Your task to perform on an android device: check data usage Image 0: 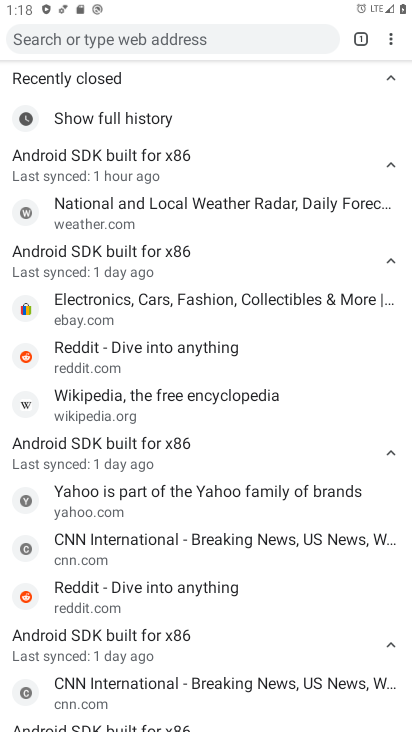
Step 0: press home button
Your task to perform on an android device: check data usage Image 1: 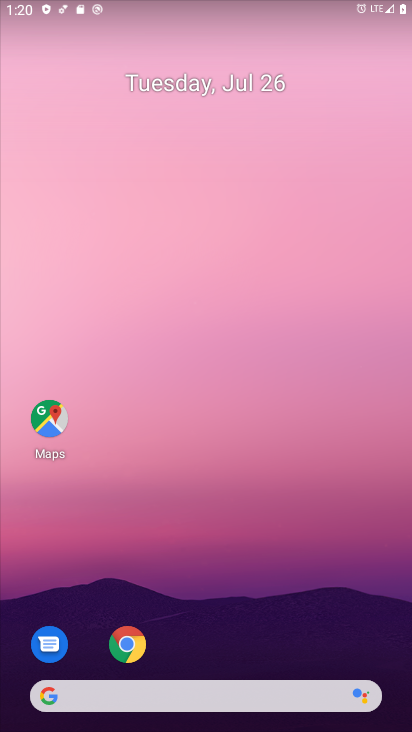
Step 1: drag from (271, 725) to (239, 0)
Your task to perform on an android device: check data usage Image 2: 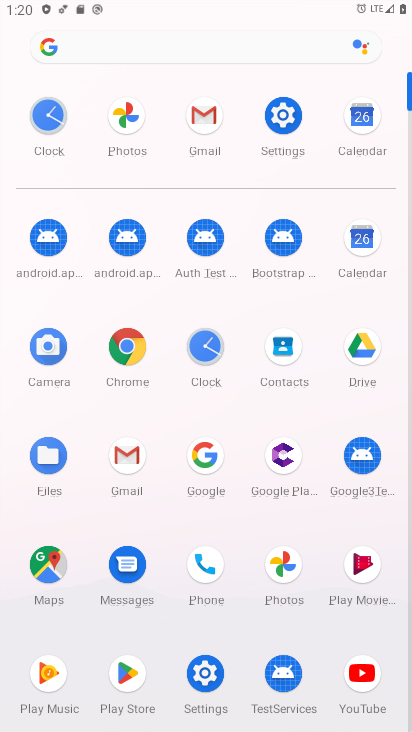
Step 2: click (286, 129)
Your task to perform on an android device: check data usage Image 3: 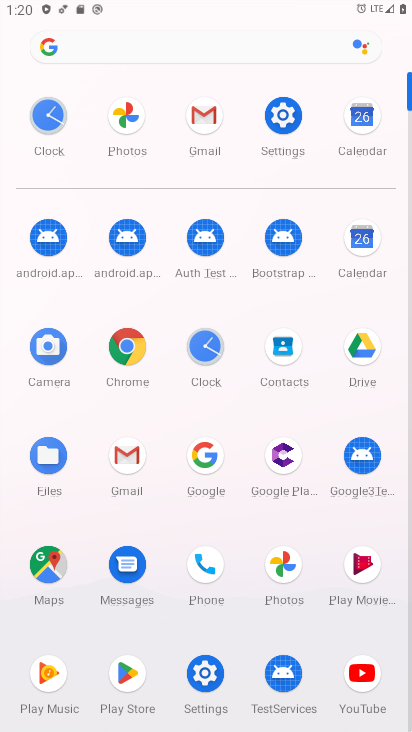
Step 3: click (286, 129)
Your task to perform on an android device: check data usage Image 4: 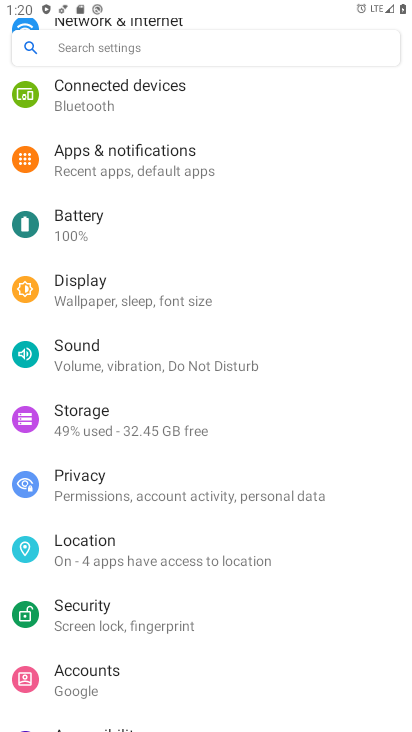
Step 4: drag from (300, 191) to (254, 716)
Your task to perform on an android device: check data usage Image 5: 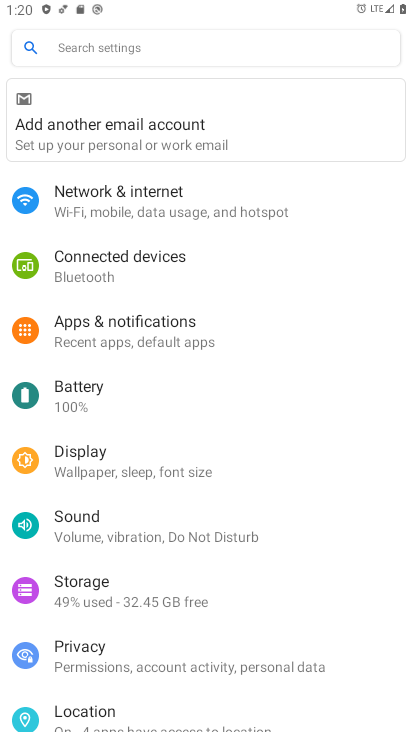
Step 5: click (206, 199)
Your task to perform on an android device: check data usage Image 6: 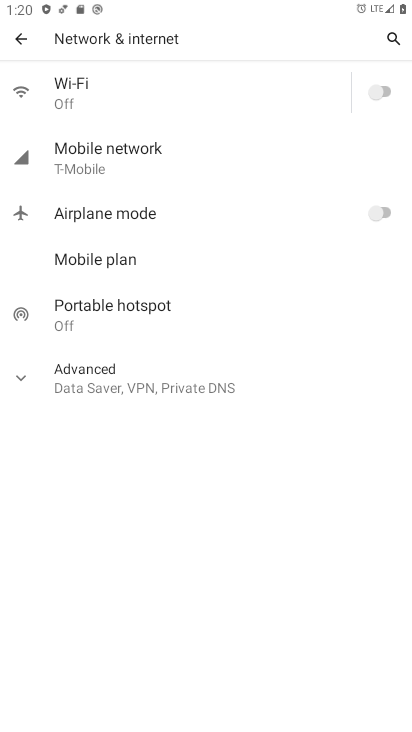
Step 6: click (136, 143)
Your task to perform on an android device: check data usage Image 7: 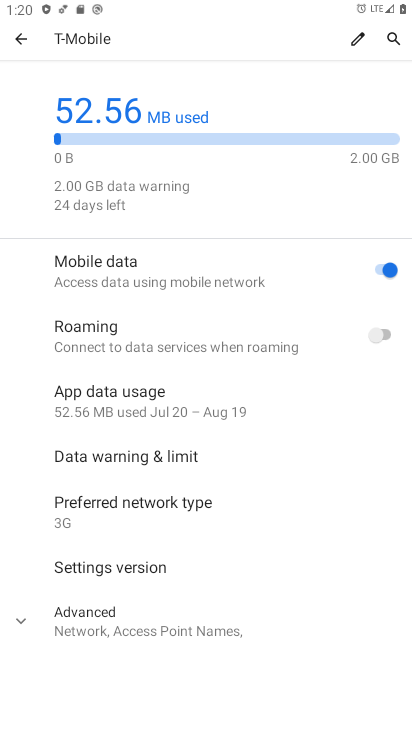
Step 7: task complete